Your task to perform on an android device: open app "Lyft - Rideshare, Bikes, Scooters & Transit" (install if not already installed), go to login, and select forgot password Image 0: 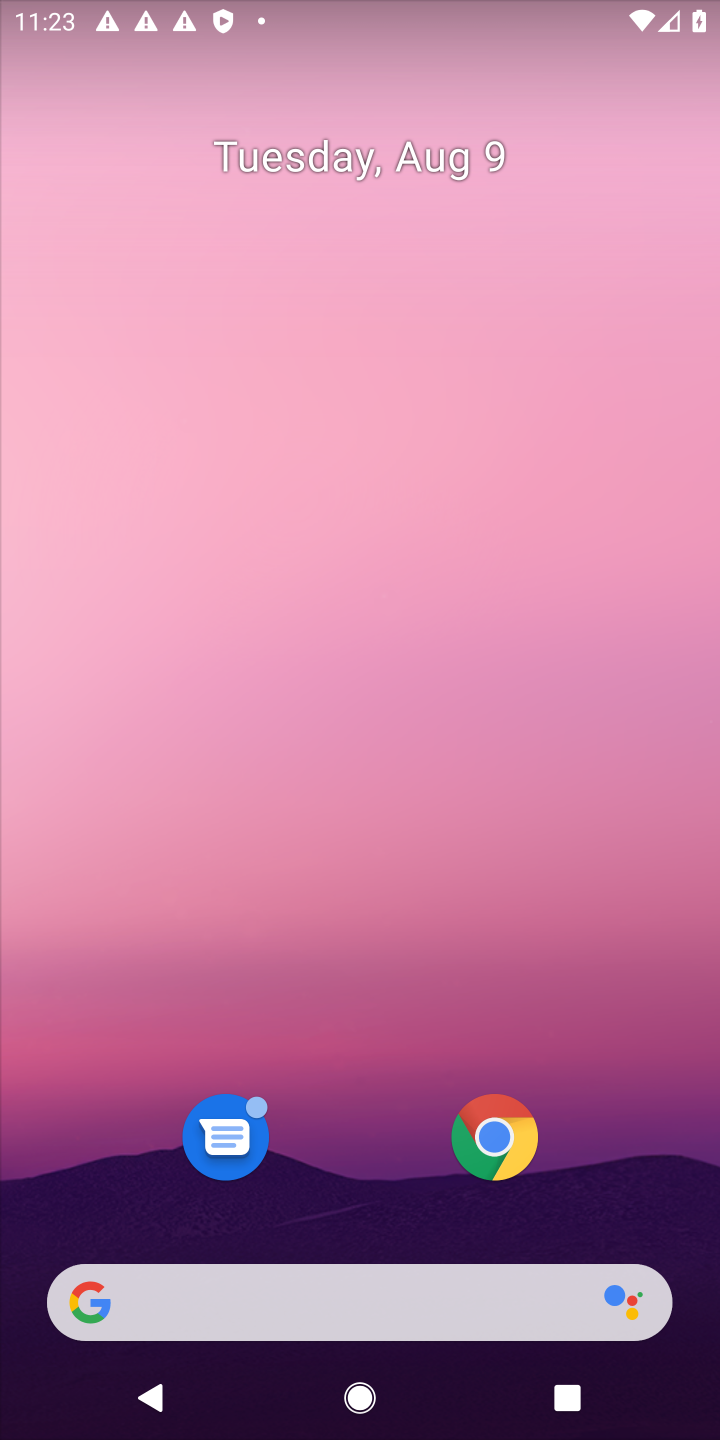
Step 0: drag from (357, 1197) to (392, 34)
Your task to perform on an android device: open app "Lyft - Rideshare, Bikes, Scooters & Transit" (install if not already installed), go to login, and select forgot password Image 1: 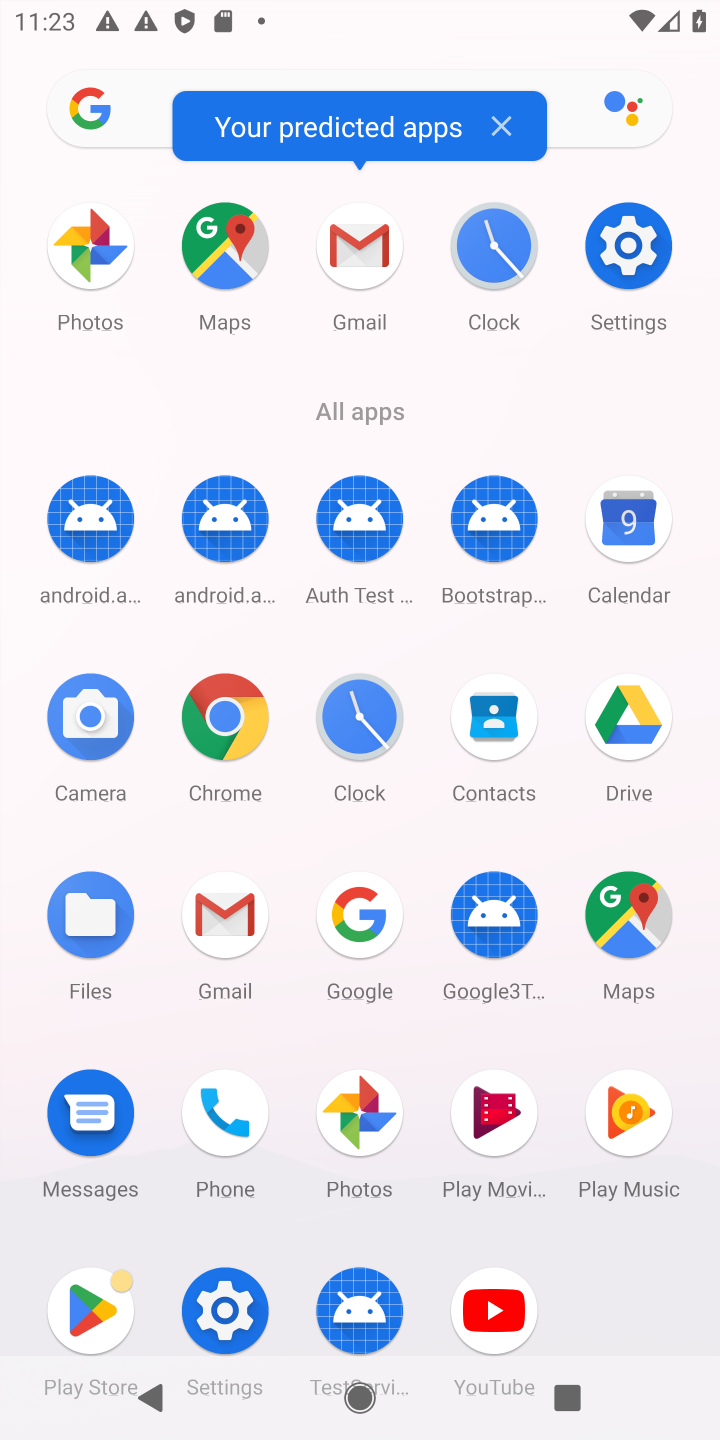
Step 1: click (79, 1305)
Your task to perform on an android device: open app "Lyft - Rideshare, Bikes, Scooters & Transit" (install if not already installed), go to login, and select forgot password Image 2: 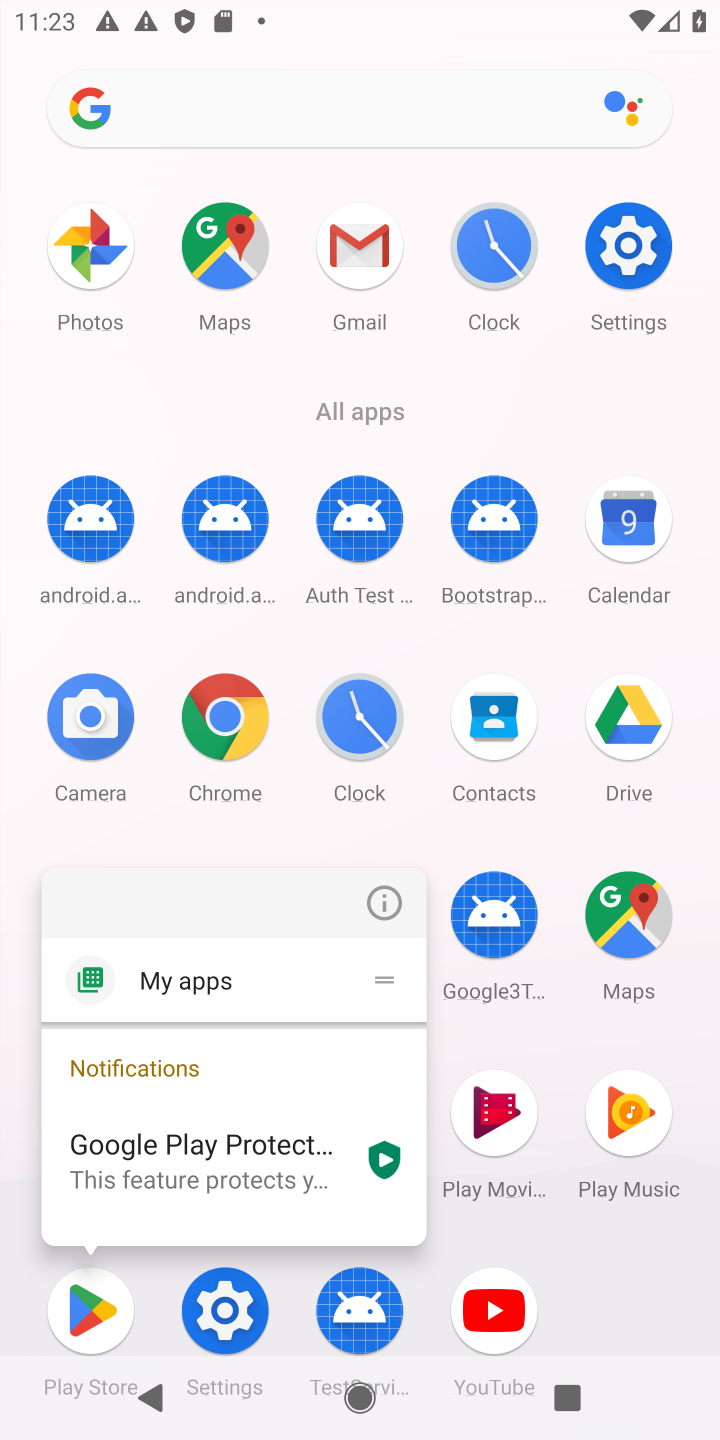
Step 2: click (78, 1309)
Your task to perform on an android device: open app "Lyft - Rideshare, Bikes, Scooters & Transit" (install if not already installed), go to login, and select forgot password Image 3: 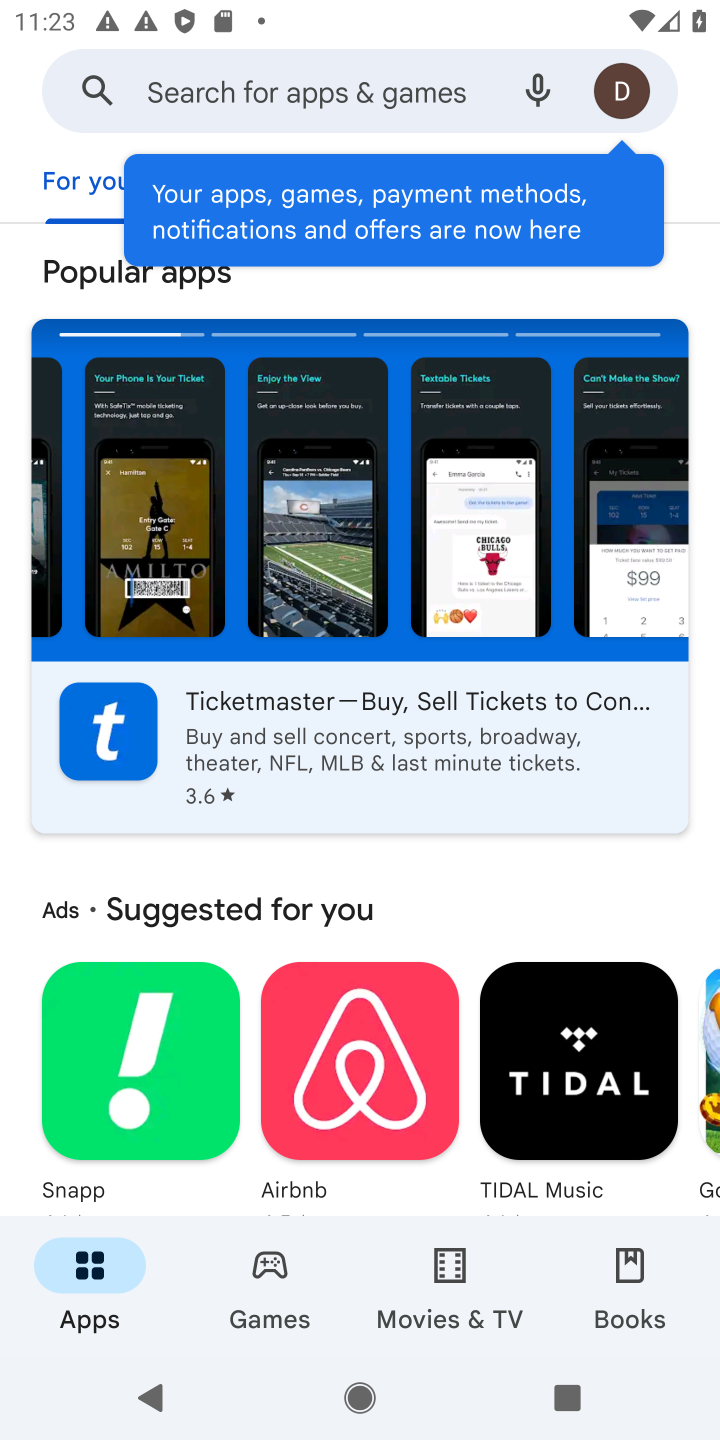
Step 3: click (269, 78)
Your task to perform on an android device: open app "Lyft - Rideshare, Bikes, Scooters & Transit" (install if not already installed), go to login, and select forgot password Image 4: 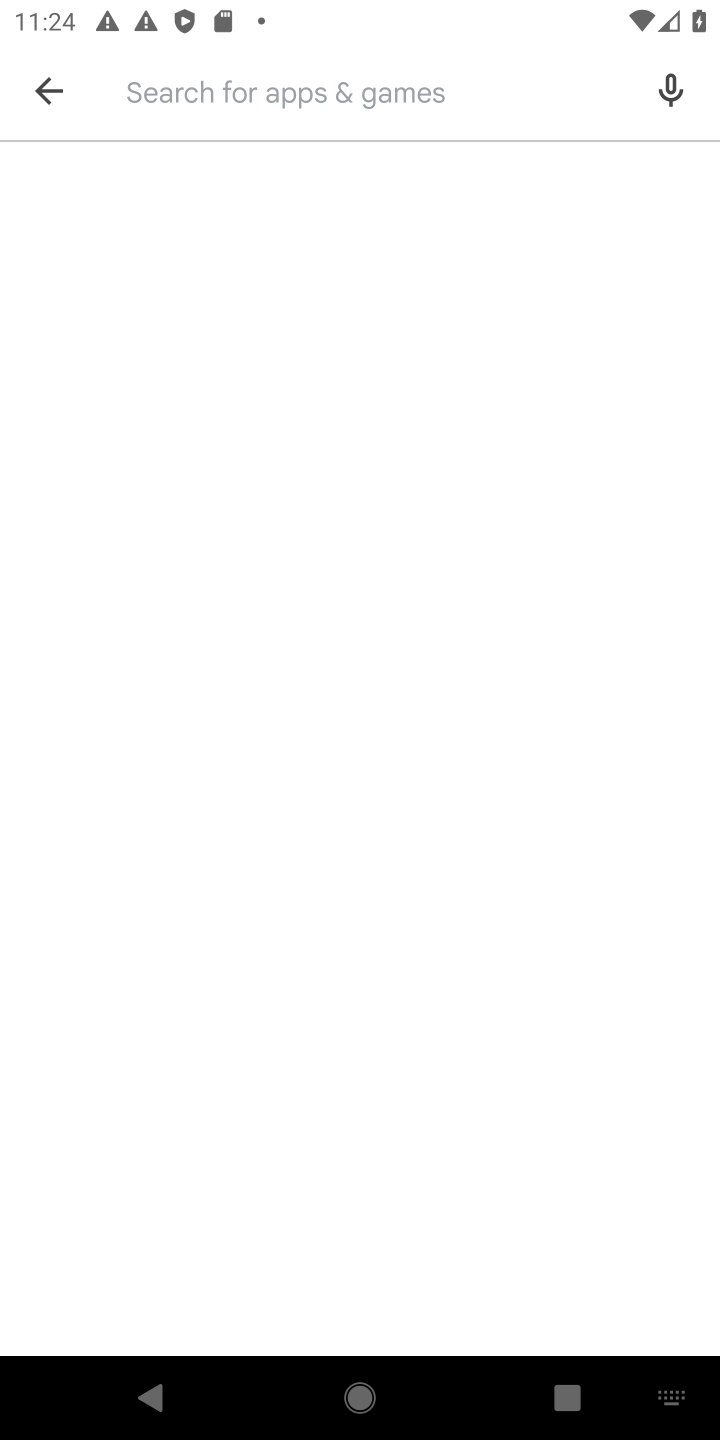
Step 4: type "Lyft"
Your task to perform on an android device: open app "Lyft - Rideshare, Bikes, Scooters & Transit" (install if not already installed), go to login, and select forgot password Image 5: 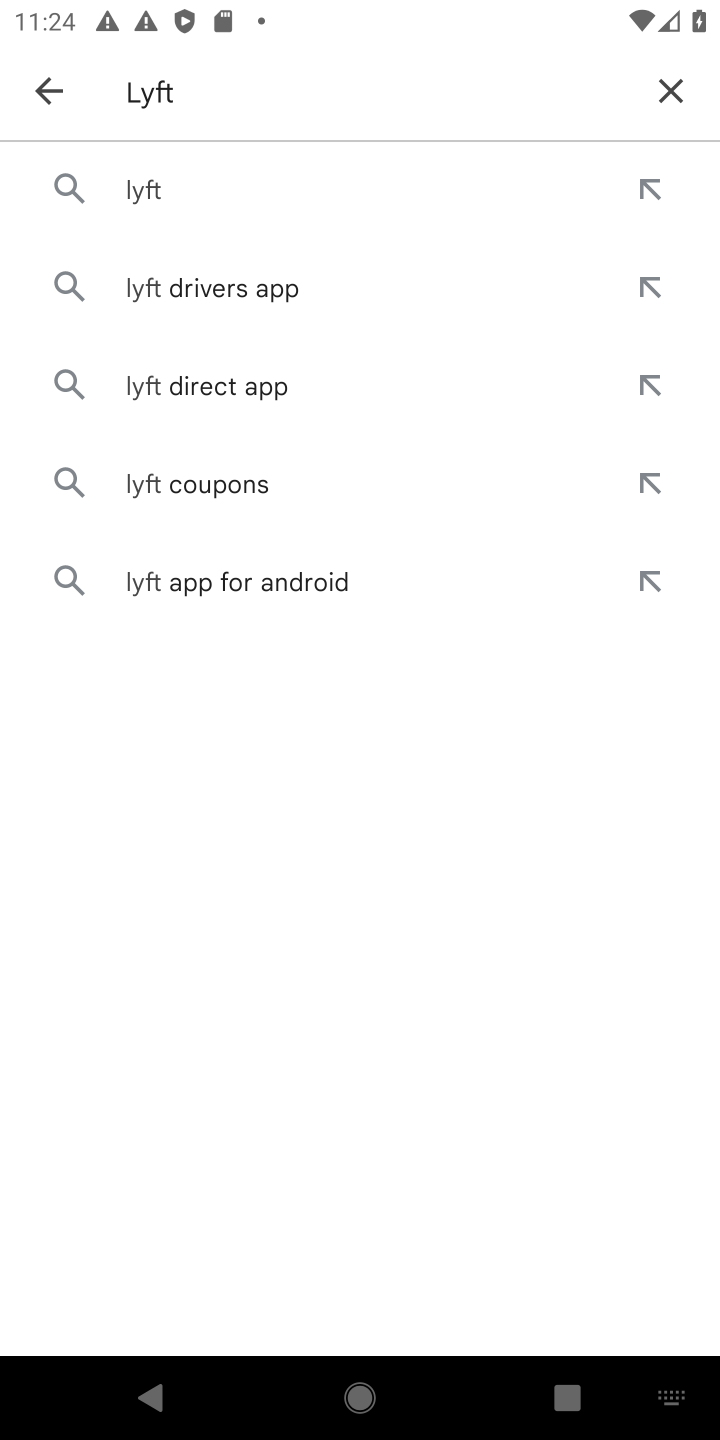
Step 5: click (169, 177)
Your task to perform on an android device: open app "Lyft - Rideshare, Bikes, Scooters & Transit" (install if not already installed), go to login, and select forgot password Image 6: 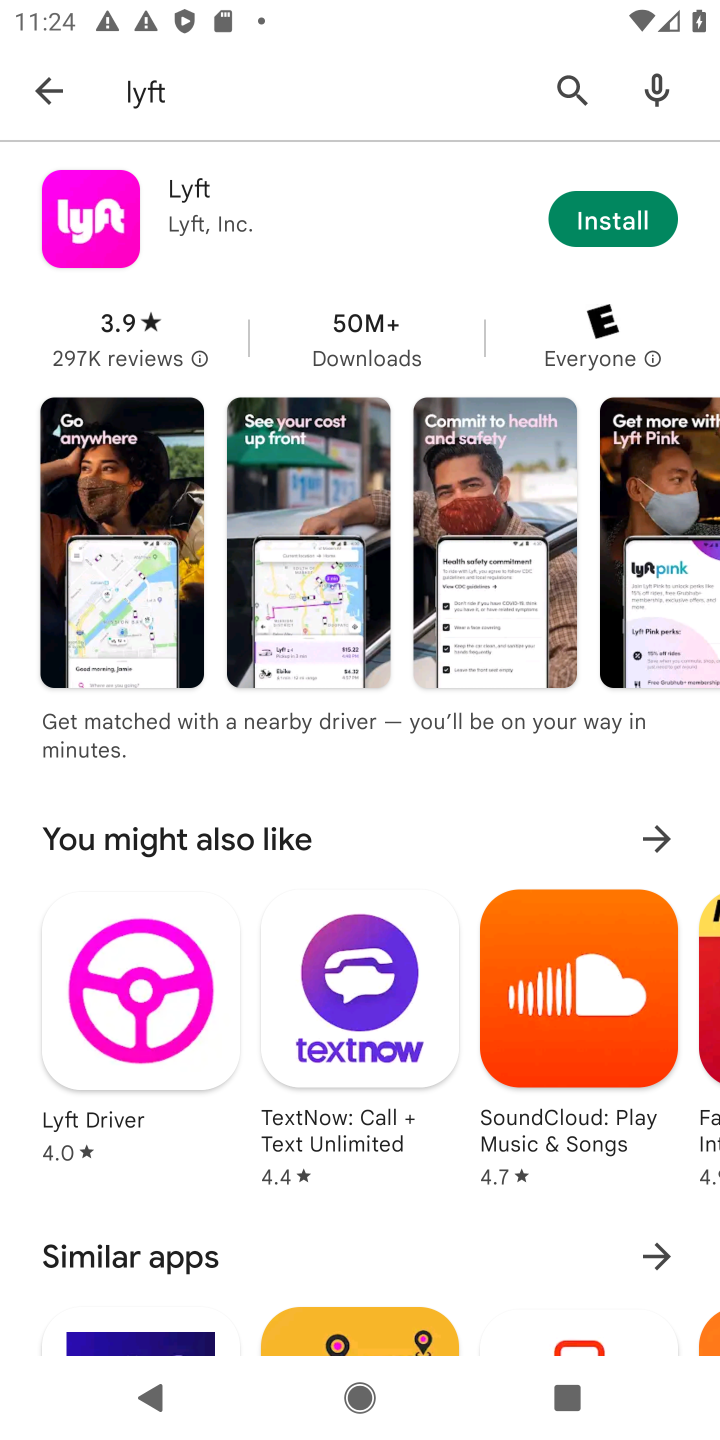
Step 6: click (273, 97)
Your task to perform on an android device: open app "Lyft - Rideshare, Bikes, Scooters & Transit" (install if not already installed), go to login, and select forgot password Image 7: 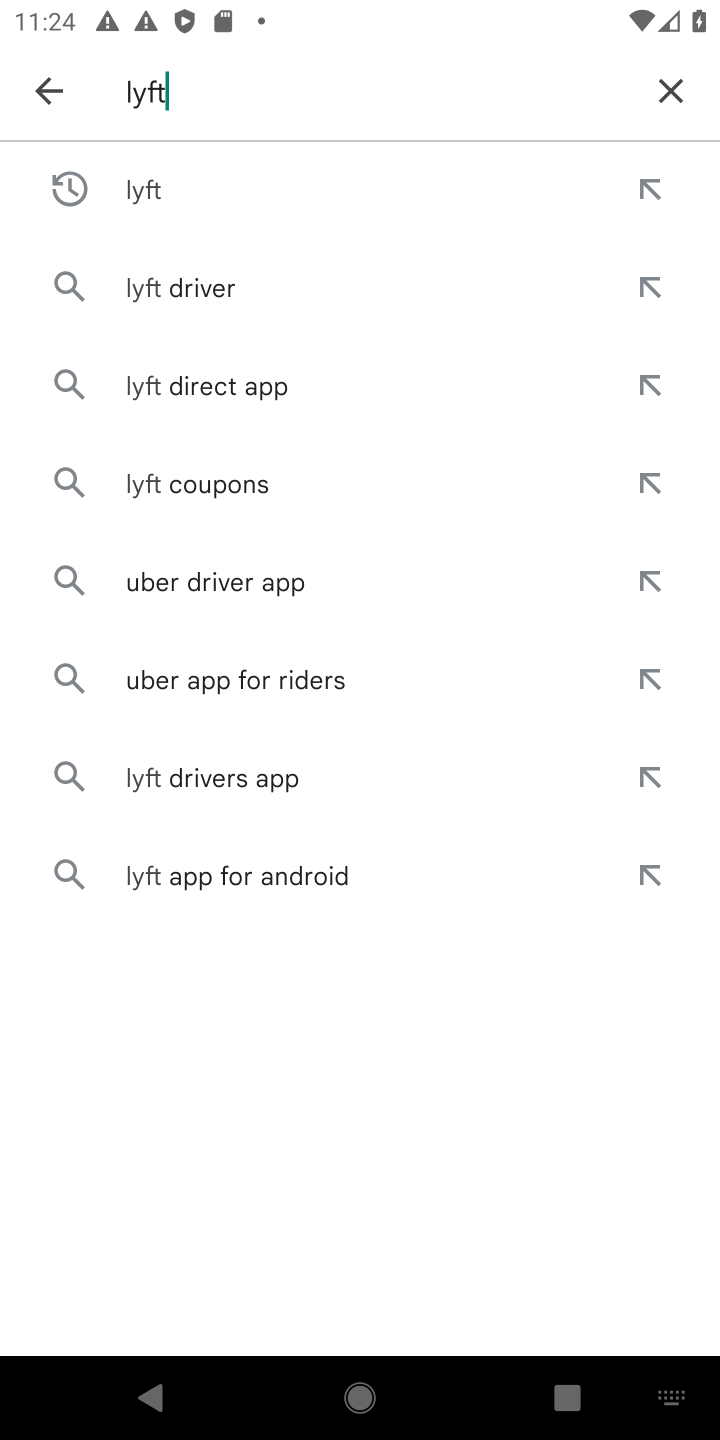
Step 7: type " - Rideshare, Bikes, Scooters & Transit"
Your task to perform on an android device: open app "Lyft - Rideshare, Bikes, Scooters & Transit" (install if not already installed), go to login, and select forgot password Image 8: 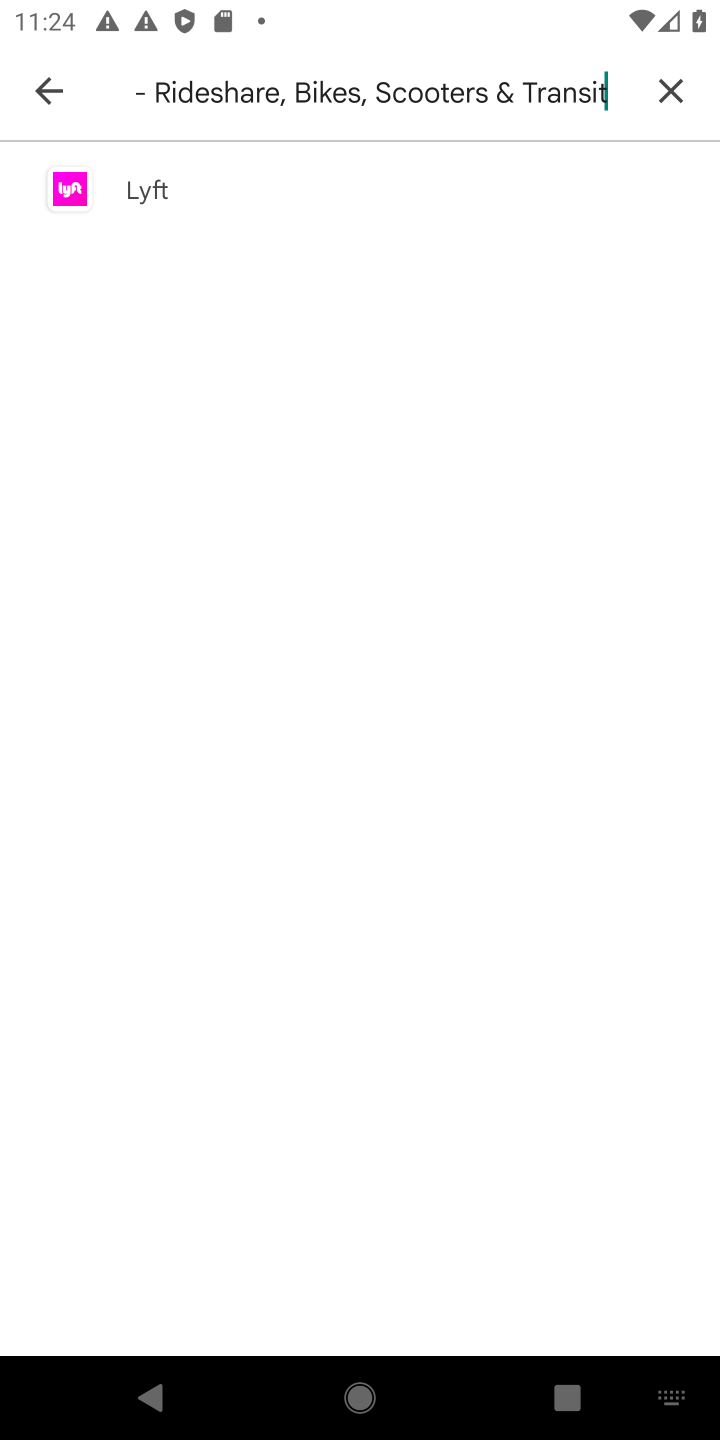
Step 8: type ""
Your task to perform on an android device: open app "Lyft - Rideshare, Bikes, Scooters & Transit" (install if not already installed), go to login, and select forgot password Image 9: 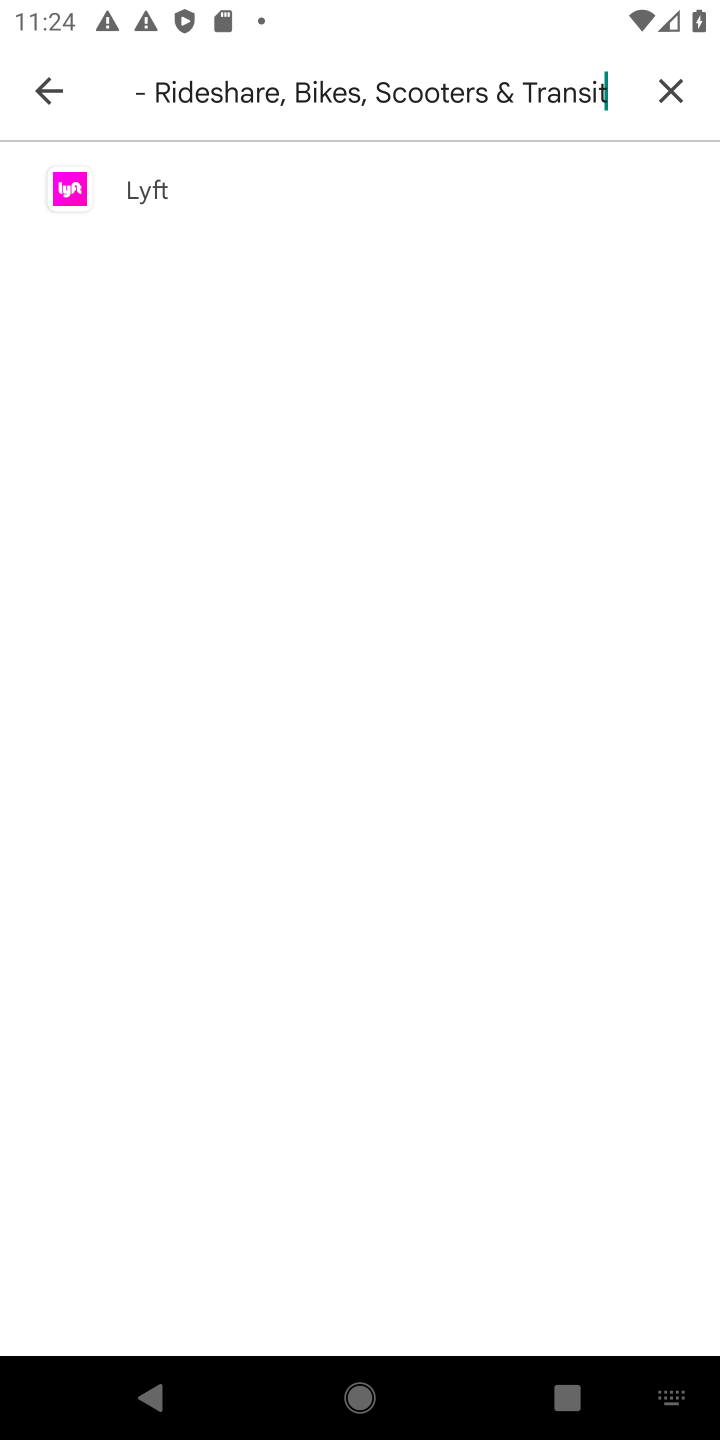
Step 9: click (157, 195)
Your task to perform on an android device: open app "Lyft - Rideshare, Bikes, Scooters & Transit" (install if not already installed), go to login, and select forgot password Image 10: 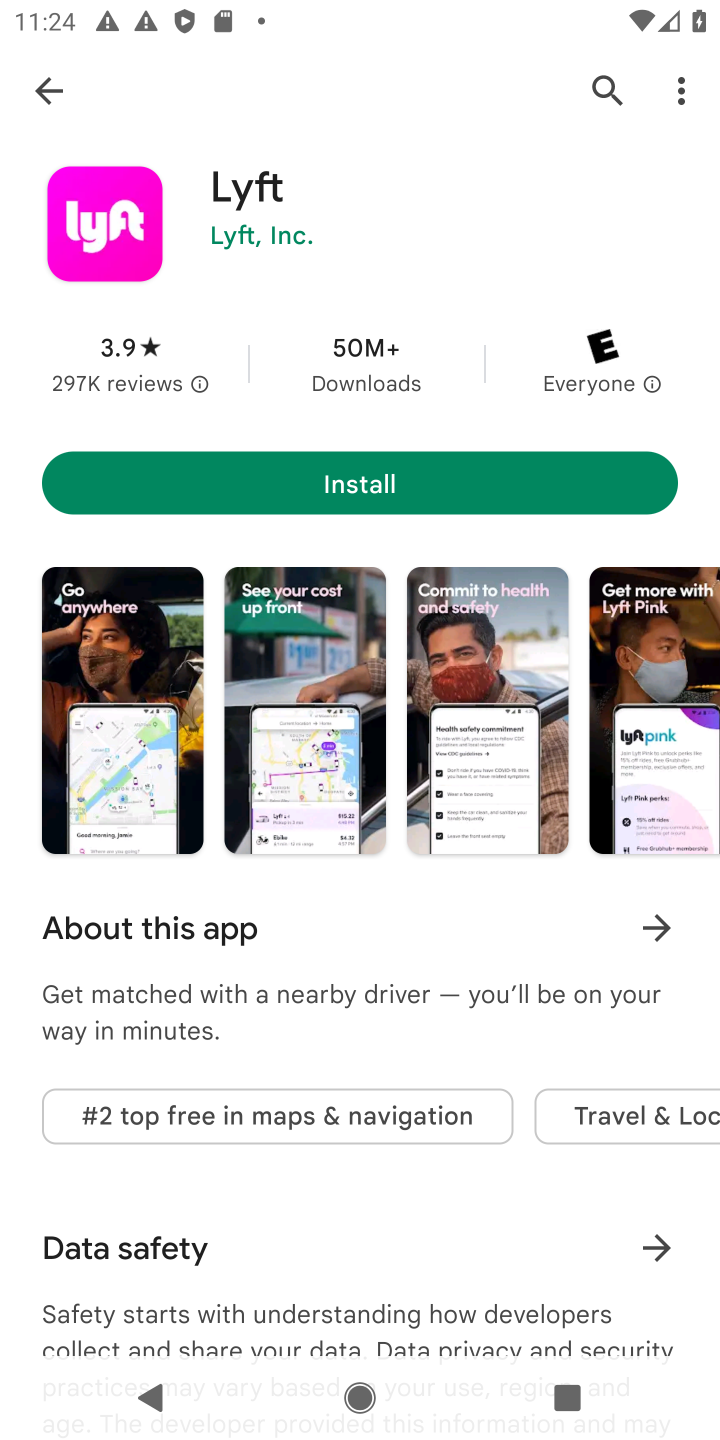
Step 10: click (351, 480)
Your task to perform on an android device: open app "Lyft - Rideshare, Bikes, Scooters & Transit" (install if not already installed), go to login, and select forgot password Image 11: 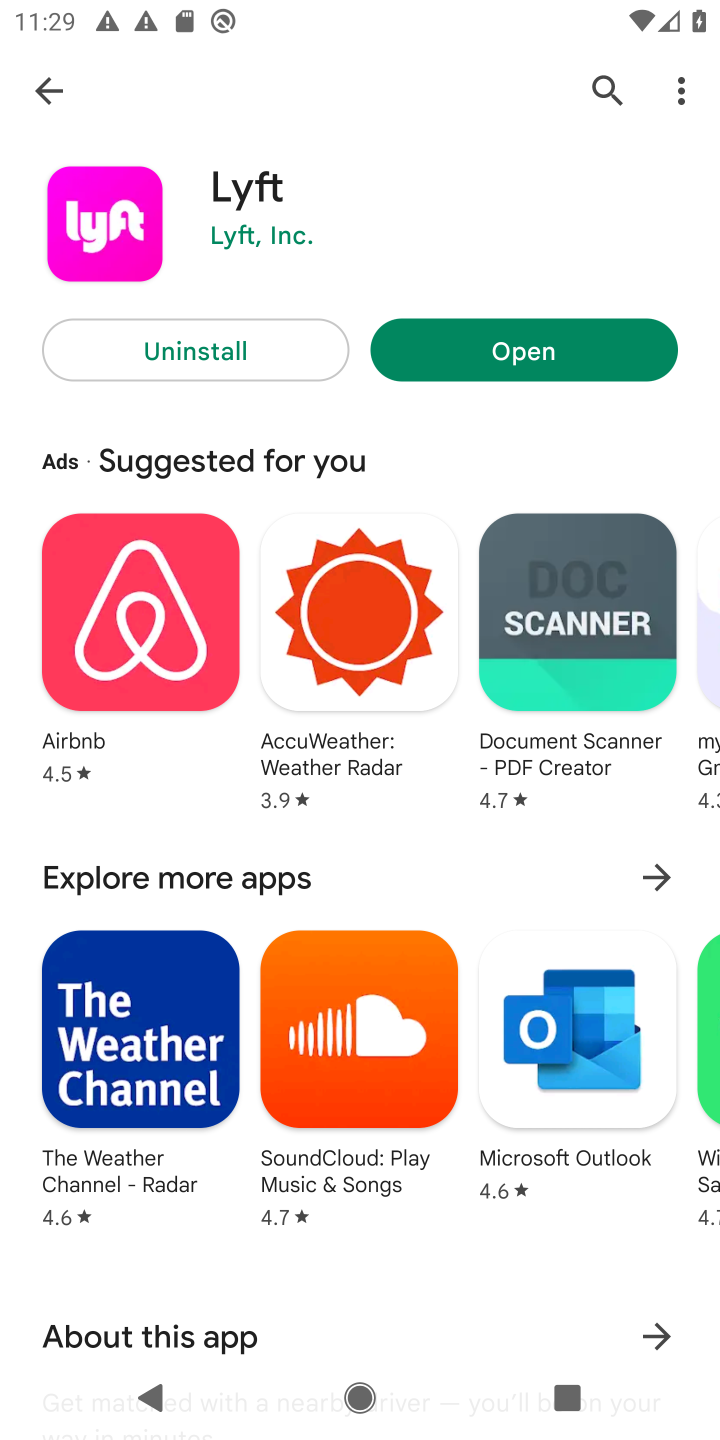
Step 11: click (532, 353)
Your task to perform on an android device: open app "Lyft - Rideshare, Bikes, Scooters & Transit" (install if not already installed), go to login, and select forgot password Image 12: 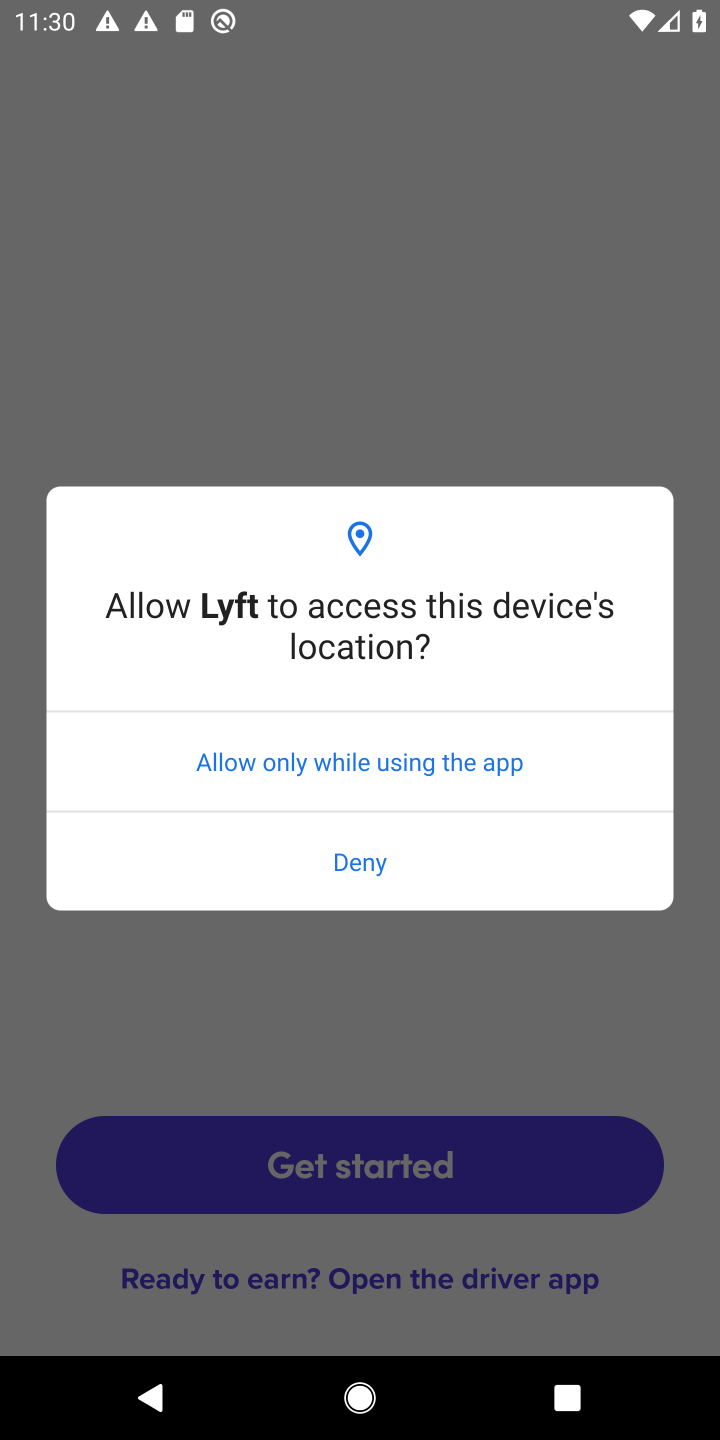
Step 12: click (382, 771)
Your task to perform on an android device: open app "Lyft - Rideshare, Bikes, Scooters & Transit" (install if not already installed), go to login, and select forgot password Image 13: 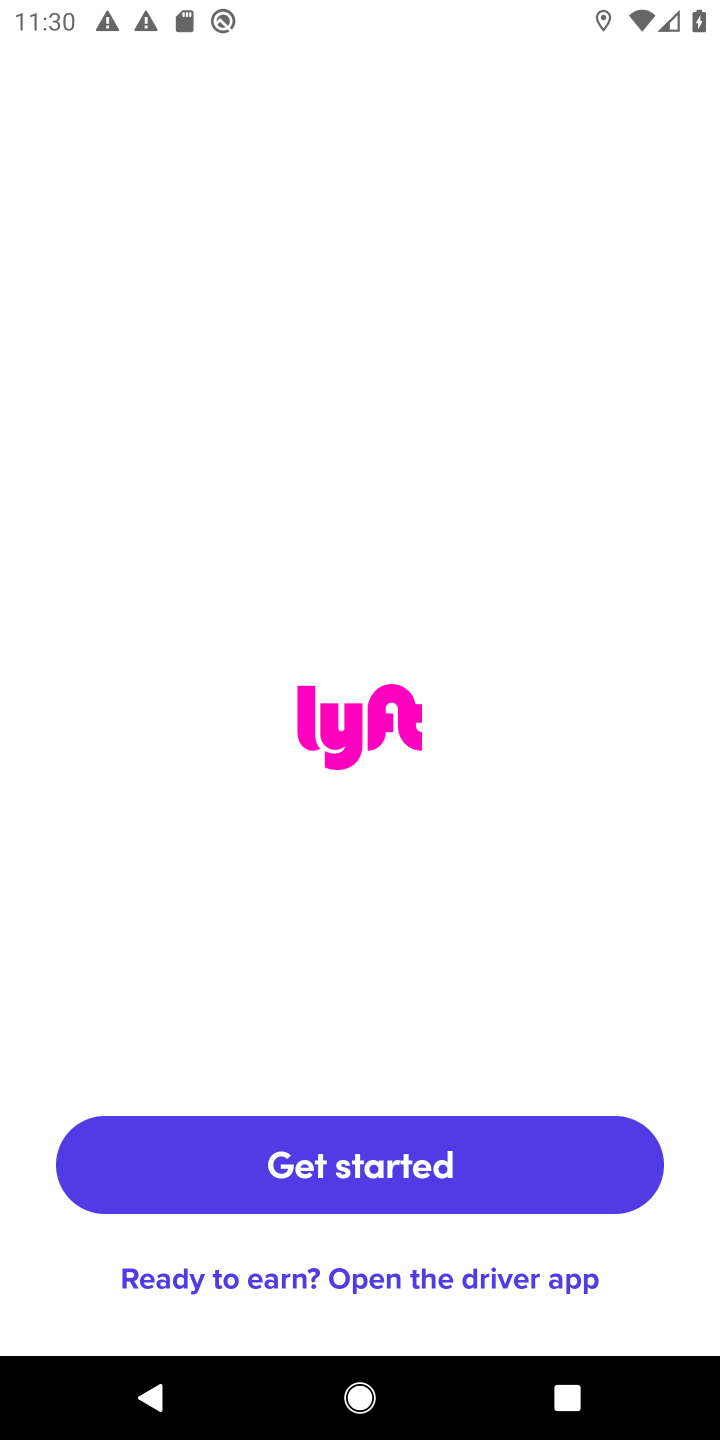
Step 13: click (375, 1174)
Your task to perform on an android device: open app "Lyft - Rideshare, Bikes, Scooters & Transit" (install if not already installed), go to login, and select forgot password Image 14: 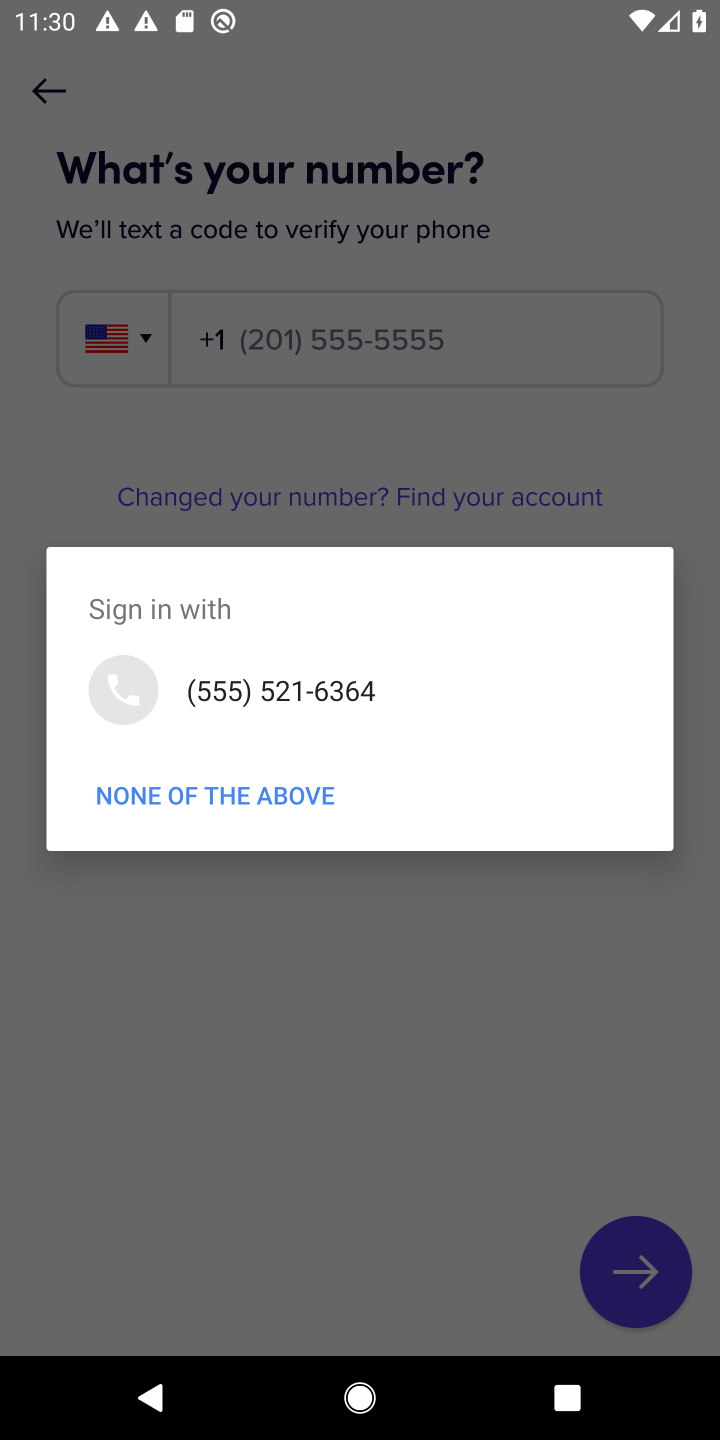
Step 14: click (327, 713)
Your task to perform on an android device: open app "Lyft - Rideshare, Bikes, Scooters & Transit" (install if not already installed), go to login, and select forgot password Image 15: 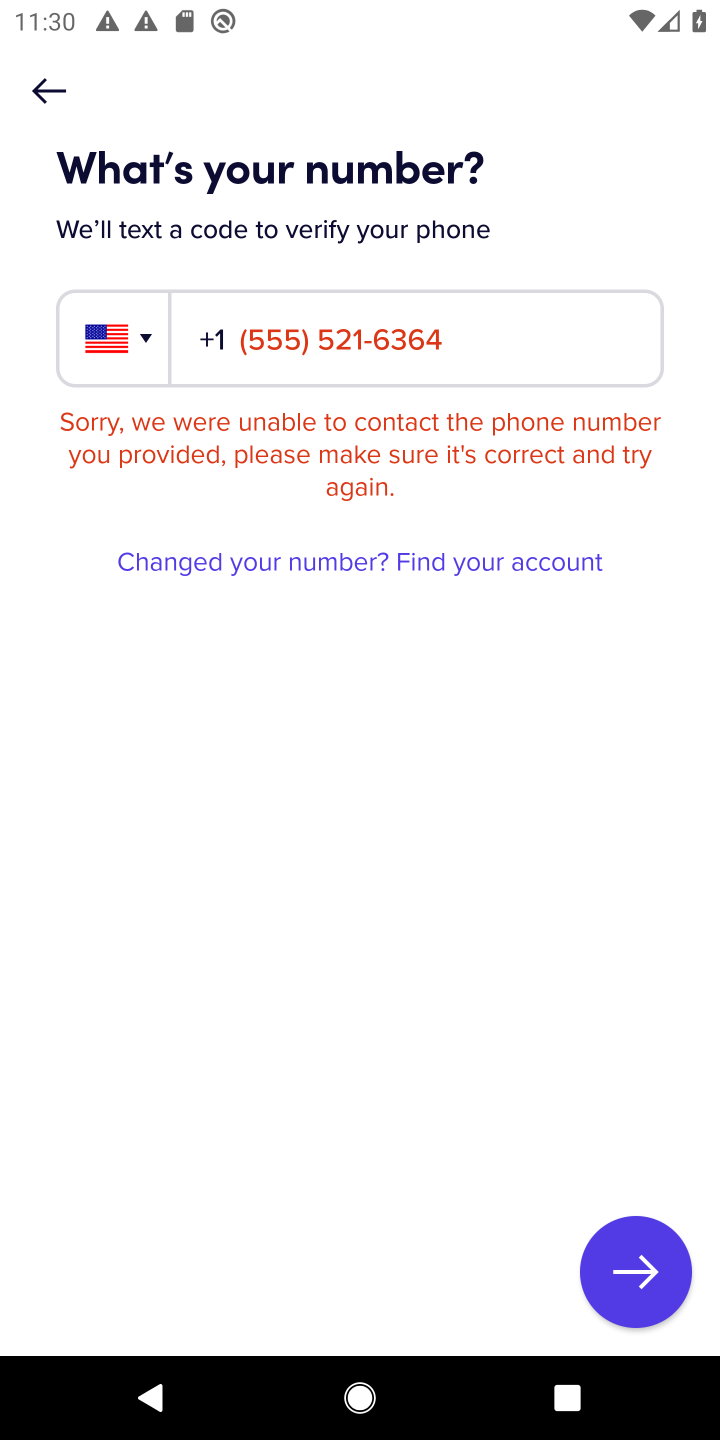
Step 15: click (255, 570)
Your task to perform on an android device: open app "Lyft - Rideshare, Bikes, Scooters & Transit" (install if not already installed), go to login, and select forgot password Image 16: 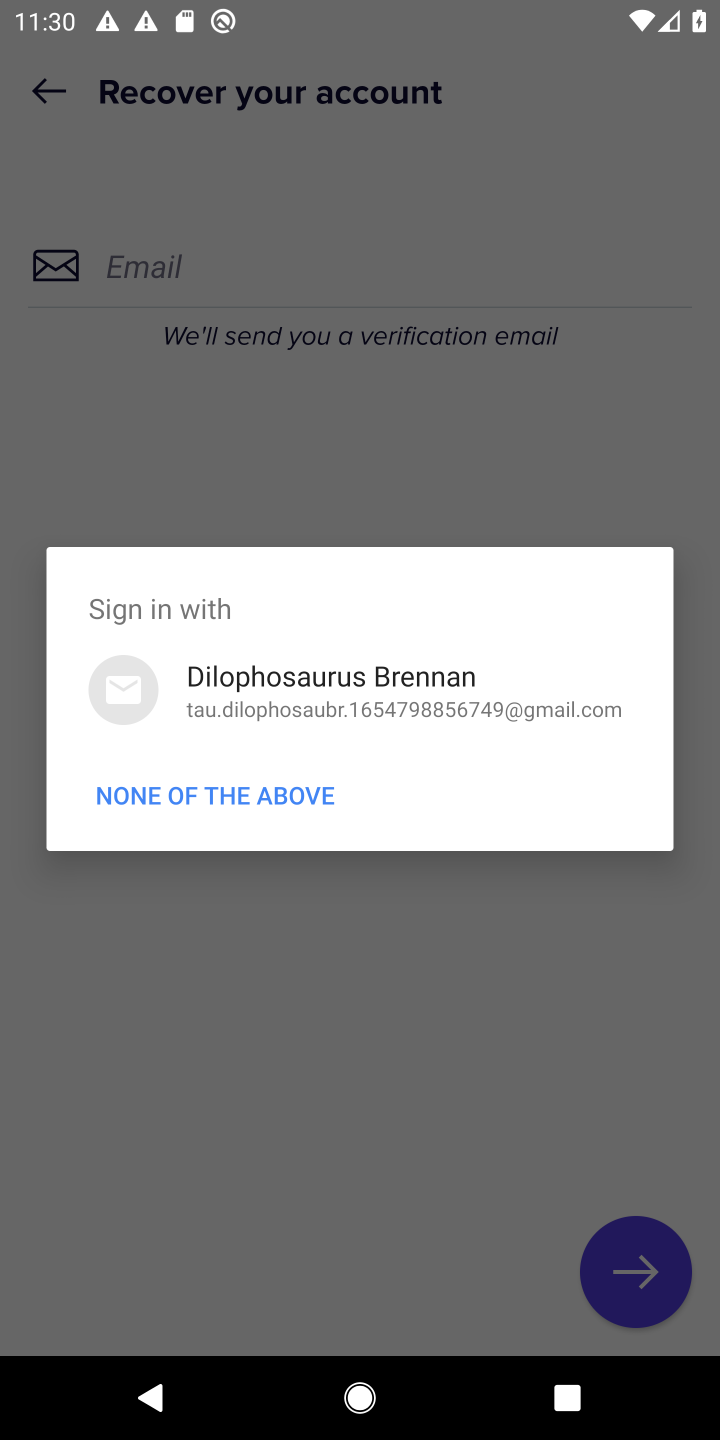
Step 16: click (321, 704)
Your task to perform on an android device: open app "Lyft - Rideshare, Bikes, Scooters & Transit" (install if not already installed), go to login, and select forgot password Image 17: 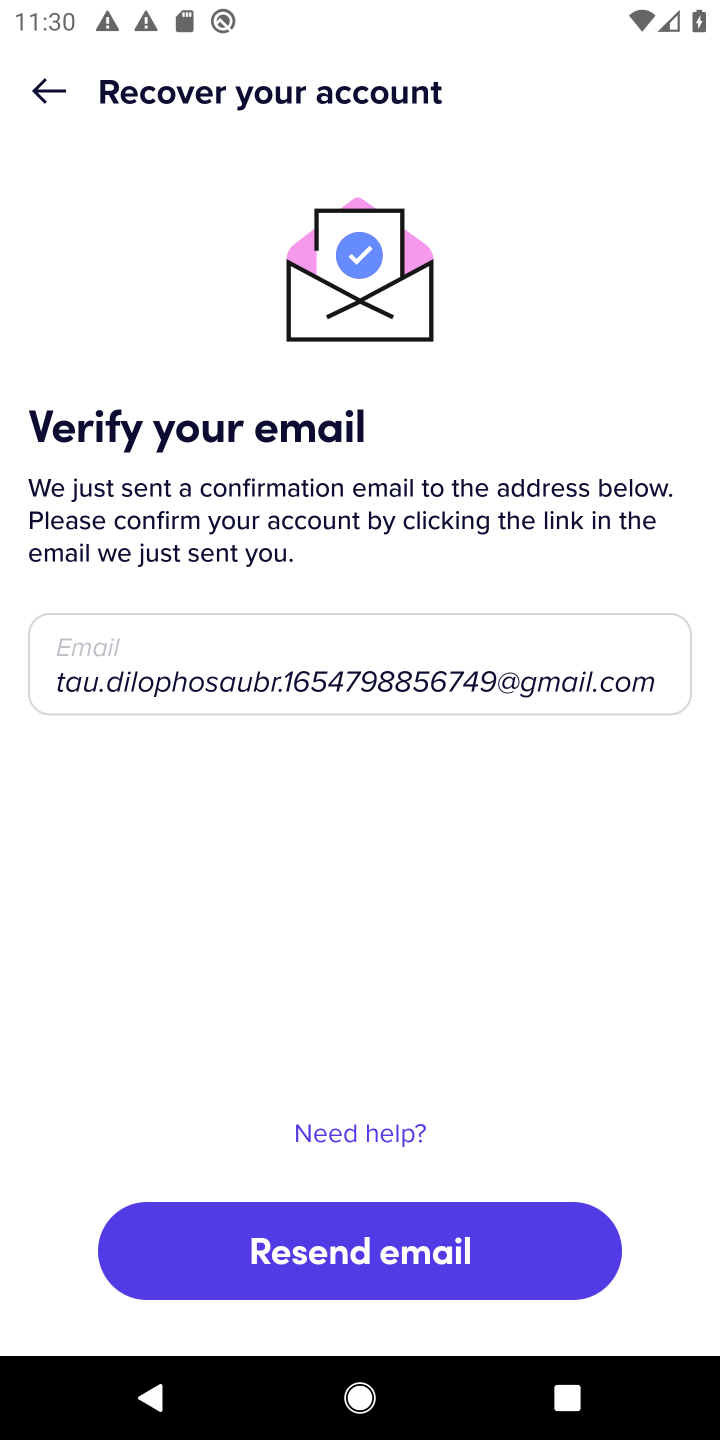
Step 17: task complete